Your task to perform on an android device: allow cookies in the chrome app Image 0: 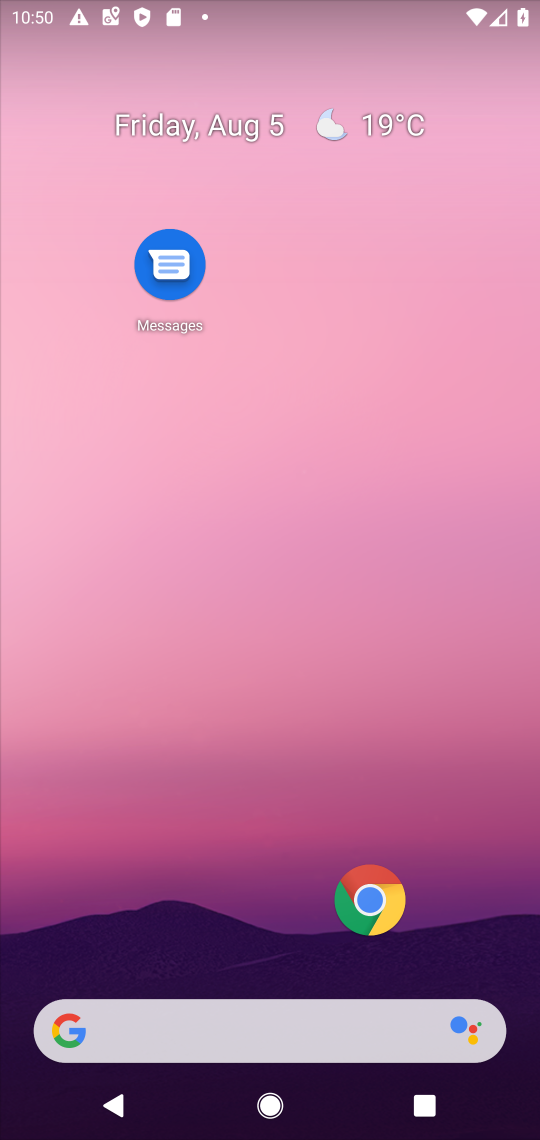
Step 0: press home button
Your task to perform on an android device: allow cookies in the chrome app Image 1: 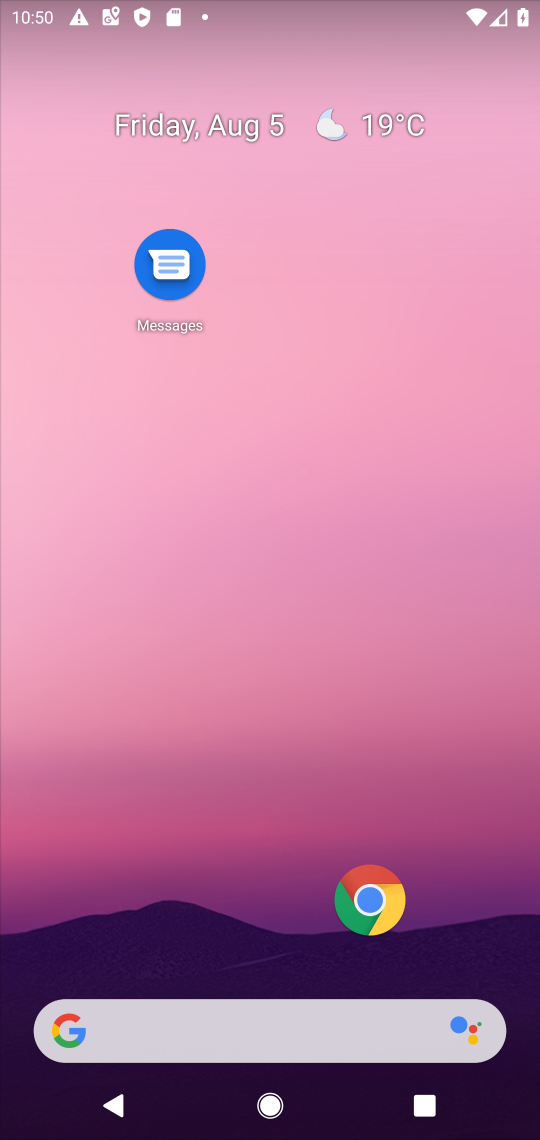
Step 1: click (284, 44)
Your task to perform on an android device: allow cookies in the chrome app Image 2: 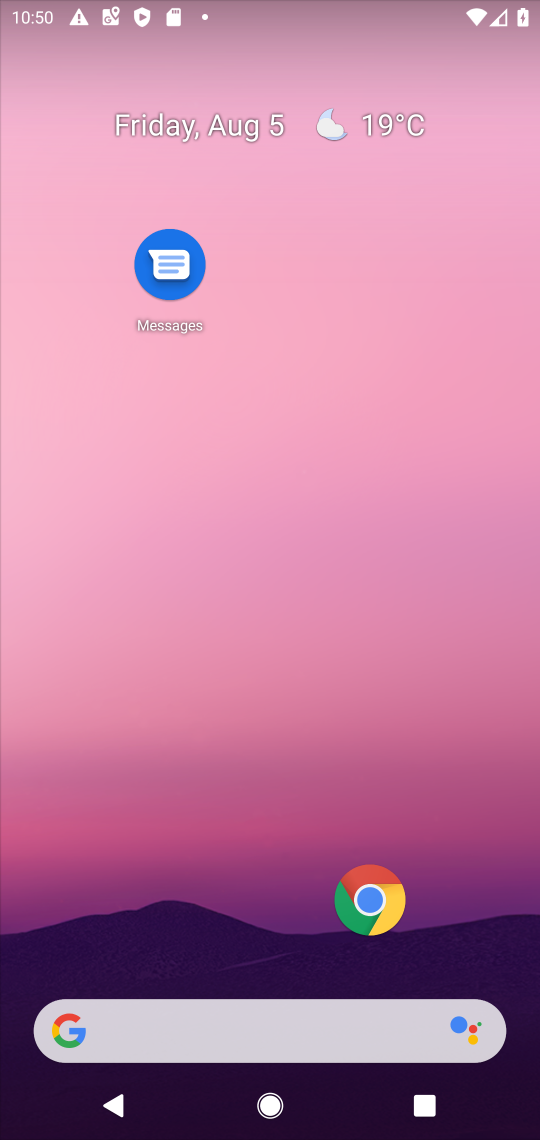
Step 2: drag from (256, 748) to (249, 251)
Your task to perform on an android device: allow cookies in the chrome app Image 3: 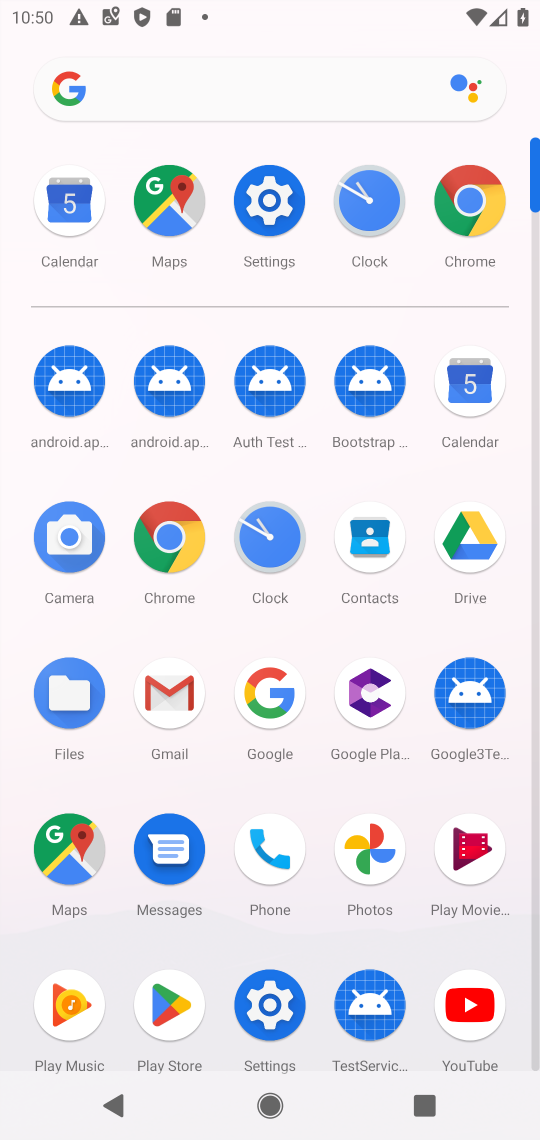
Step 3: click (481, 190)
Your task to perform on an android device: allow cookies in the chrome app Image 4: 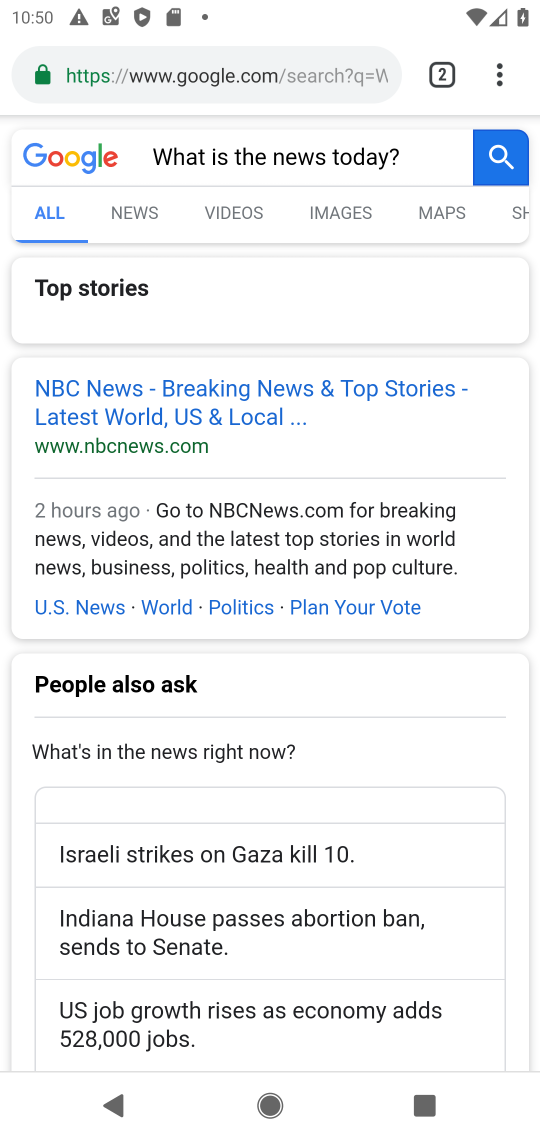
Step 4: drag from (498, 85) to (254, 841)
Your task to perform on an android device: allow cookies in the chrome app Image 5: 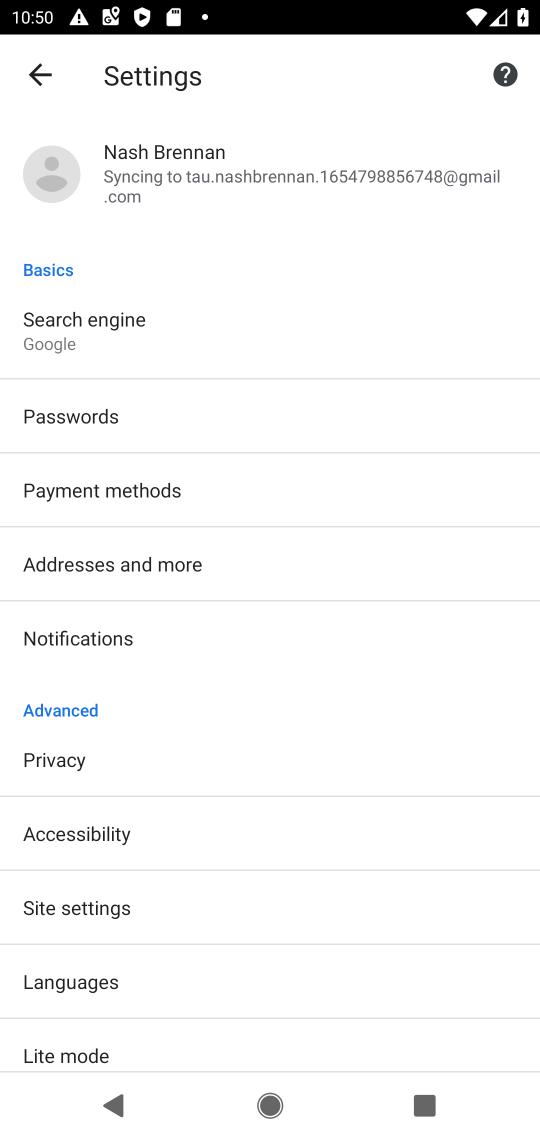
Step 5: click (89, 915)
Your task to perform on an android device: allow cookies in the chrome app Image 6: 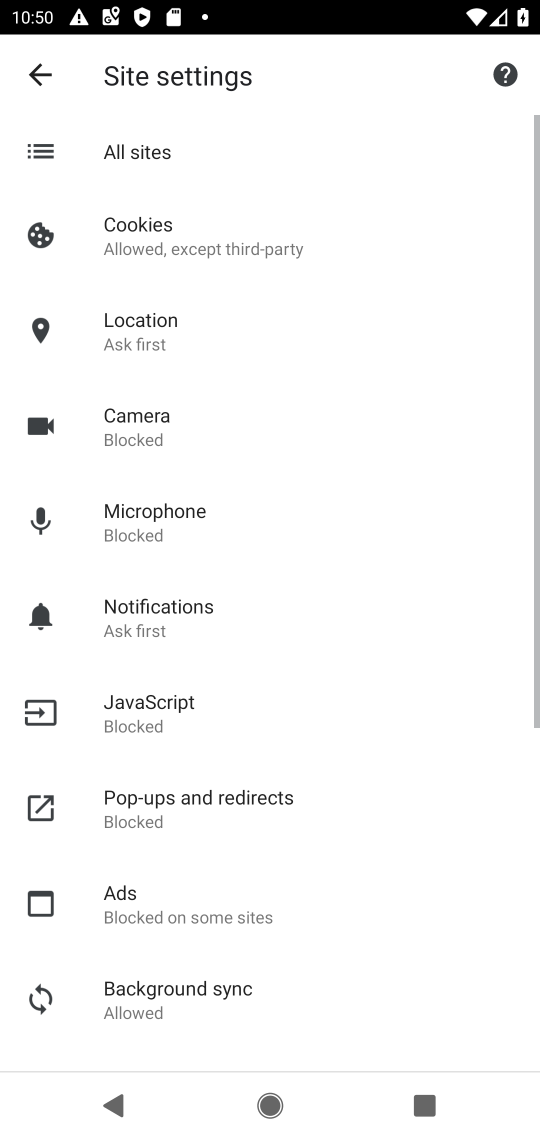
Step 6: click (123, 212)
Your task to perform on an android device: allow cookies in the chrome app Image 7: 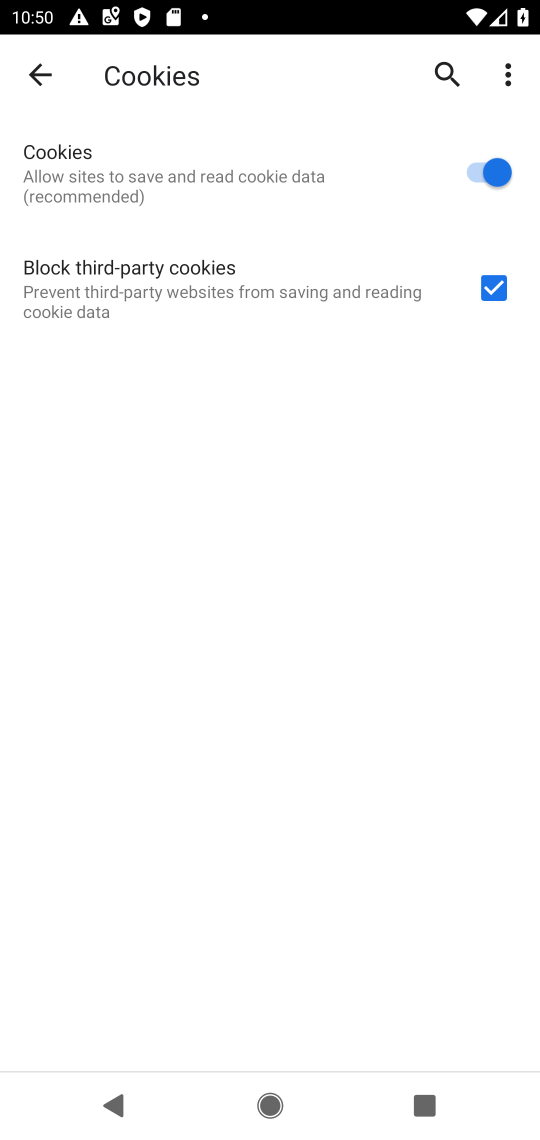
Step 7: task complete